Your task to perform on an android device: delete browsing data in the chrome app Image 0: 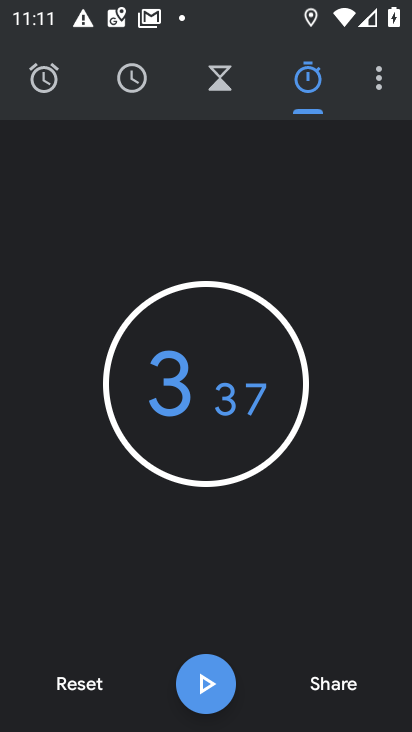
Step 0: press home button
Your task to perform on an android device: delete browsing data in the chrome app Image 1: 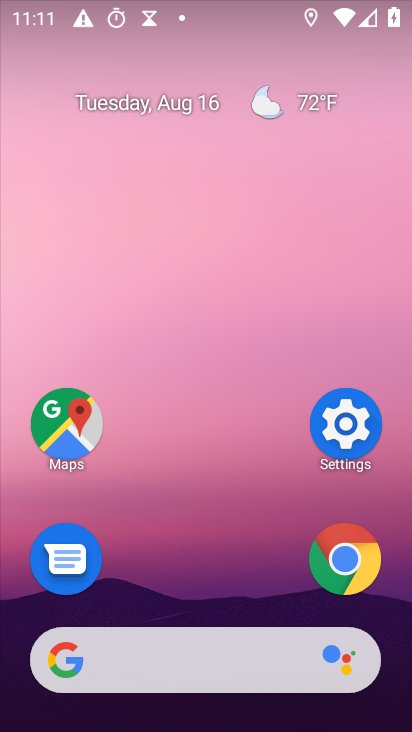
Step 1: click (410, 514)
Your task to perform on an android device: delete browsing data in the chrome app Image 2: 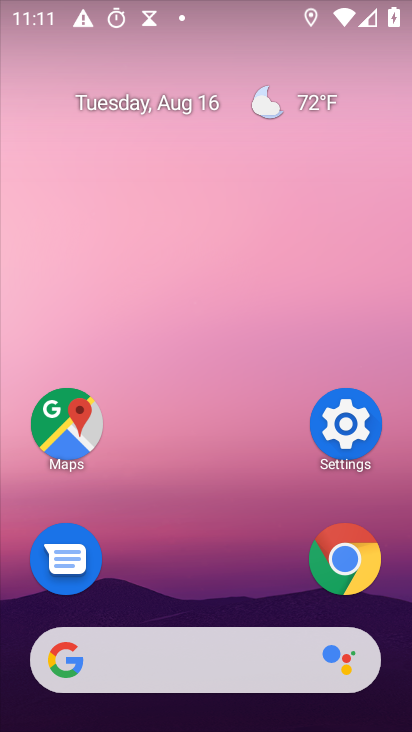
Step 2: click (339, 565)
Your task to perform on an android device: delete browsing data in the chrome app Image 3: 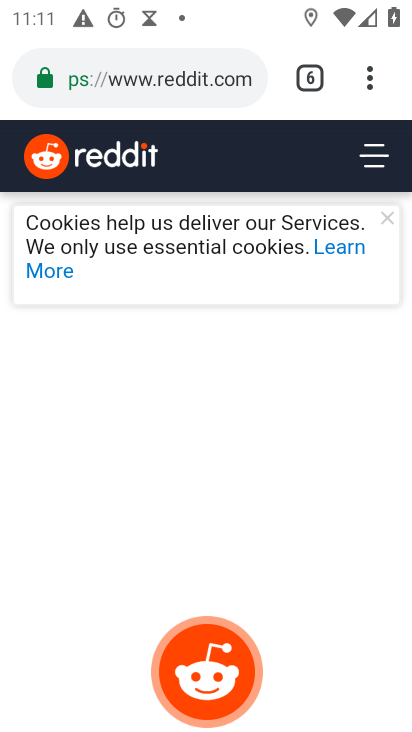
Step 3: drag from (365, 76) to (233, 627)
Your task to perform on an android device: delete browsing data in the chrome app Image 4: 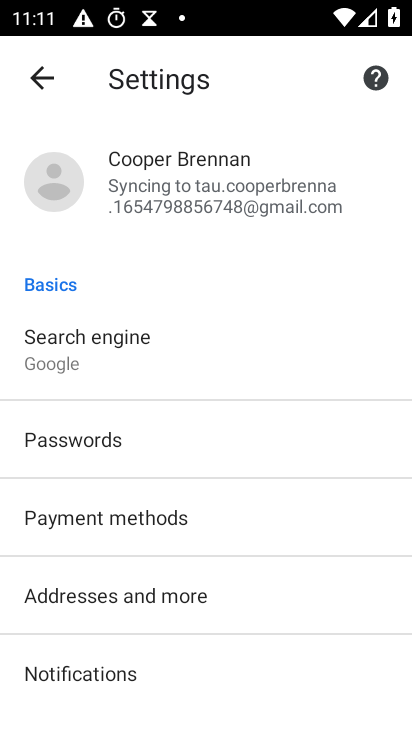
Step 4: drag from (216, 645) to (268, 165)
Your task to perform on an android device: delete browsing data in the chrome app Image 5: 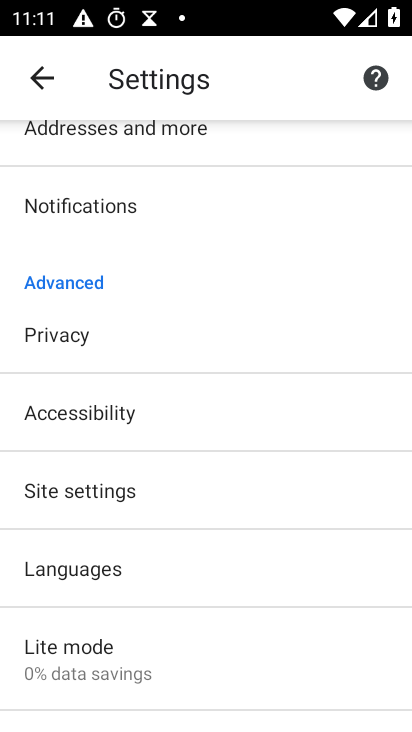
Step 5: click (63, 334)
Your task to perform on an android device: delete browsing data in the chrome app Image 6: 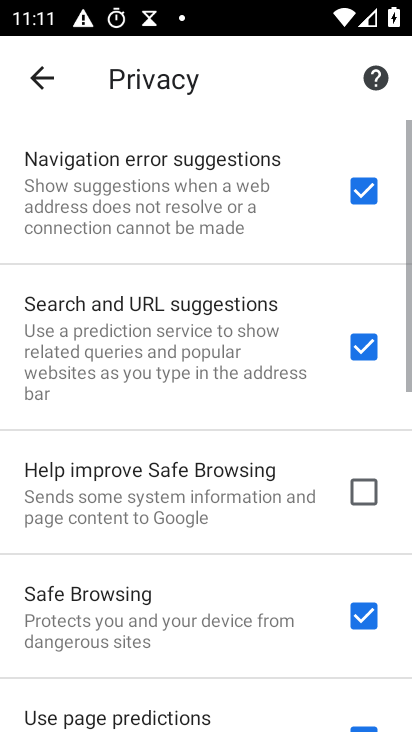
Step 6: drag from (229, 647) to (285, 3)
Your task to perform on an android device: delete browsing data in the chrome app Image 7: 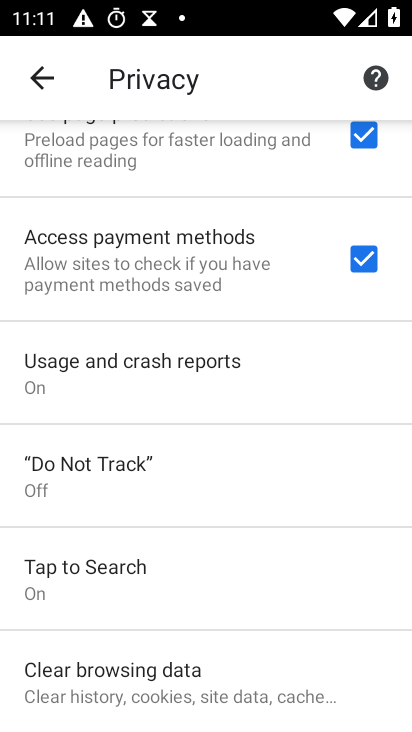
Step 7: drag from (241, 632) to (312, 77)
Your task to perform on an android device: delete browsing data in the chrome app Image 8: 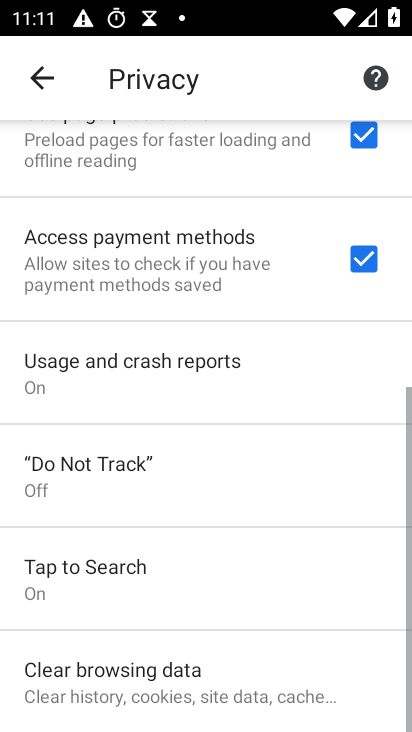
Step 8: click (211, 674)
Your task to perform on an android device: delete browsing data in the chrome app Image 9: 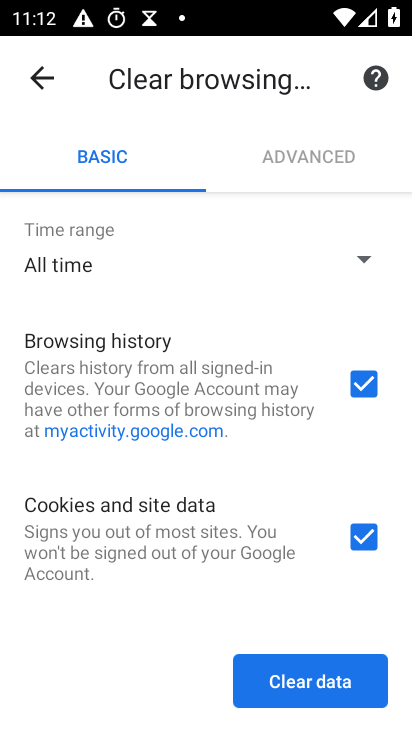
Step 9: drag from (258, 576) to (280, 321)
Your task to perform on an android device: delete browsing data in the chrome app Image 10: 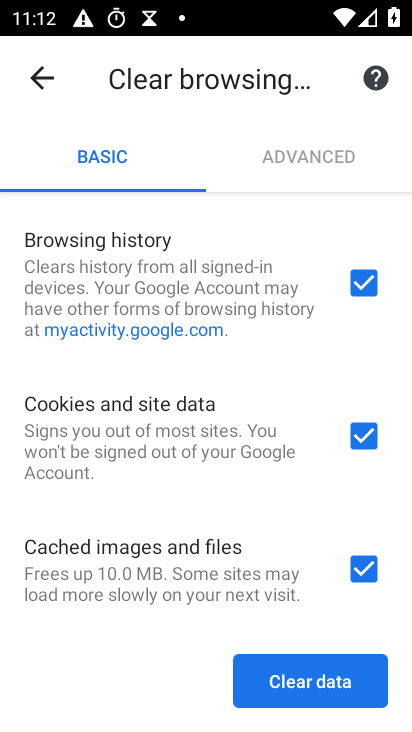
Step 10: click (309, 679)
Your task to perform on an android device: delete browsing data in the chrome app Image 11: 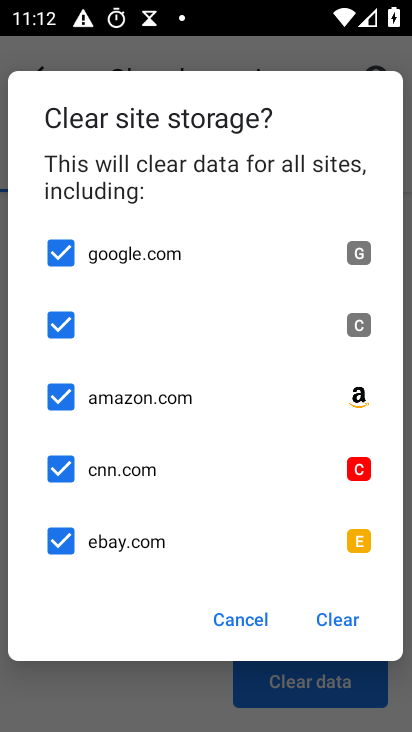
Step 11: click (349, 616)
Your task to perform on an android device: delete browsing data in the chrome app Image 12: 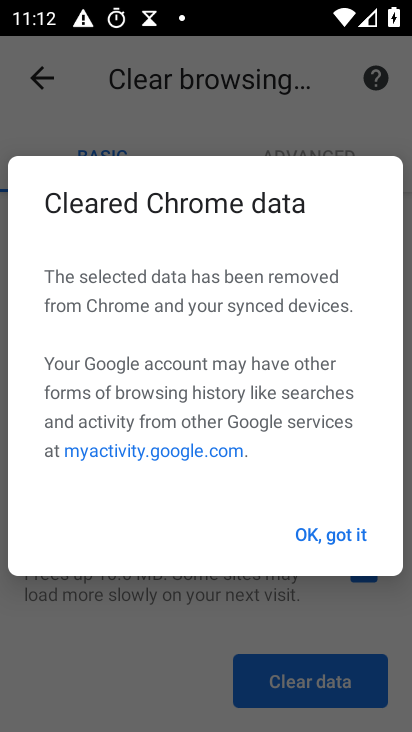
Step 12: click (335, 531)
Your task to perform on an android device: delete browsing data in the chrome app Image 13: 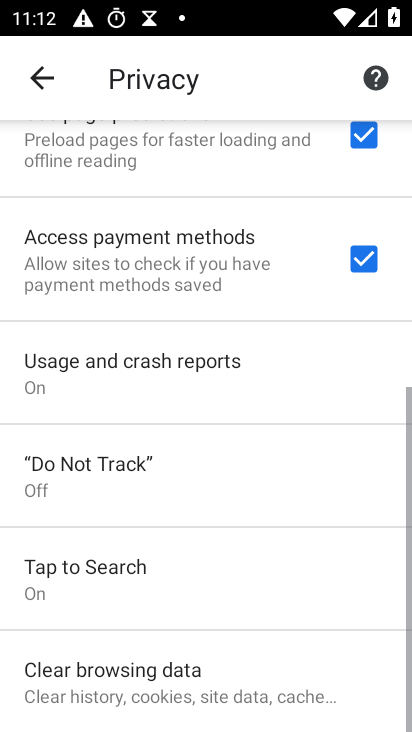
Step 13: task complete